Your task to perform on an android device: toggle location history Image 0: 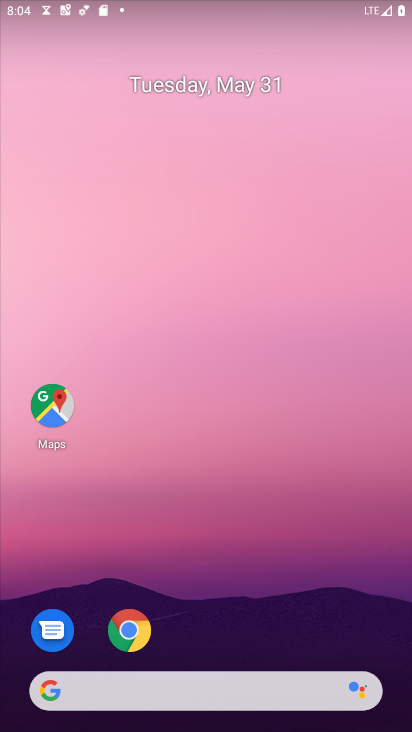
Step 0: drag from (246, 612) to (185, 151)
Your task to perform on an android device: toggle location history Image 1: 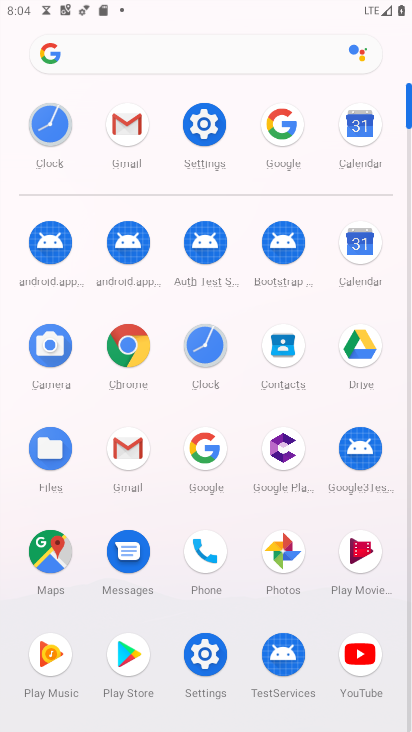
Step 1: click (204, 124)
Your task to perform on an android device: toggle location history Image 2: 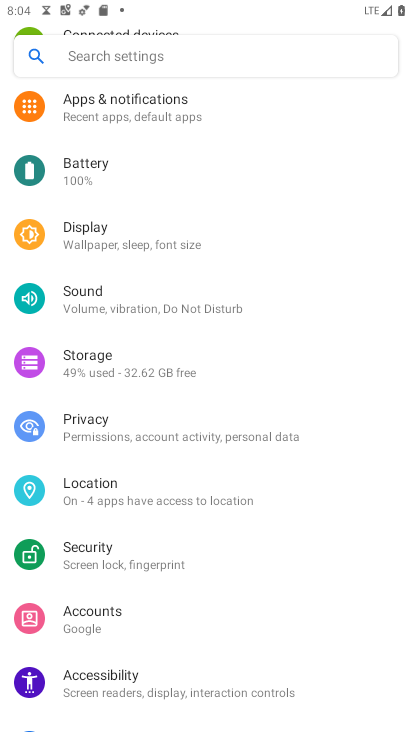
Step 2: click (150, 496)
Your task to perform on an android device: toggle location history Image 3: 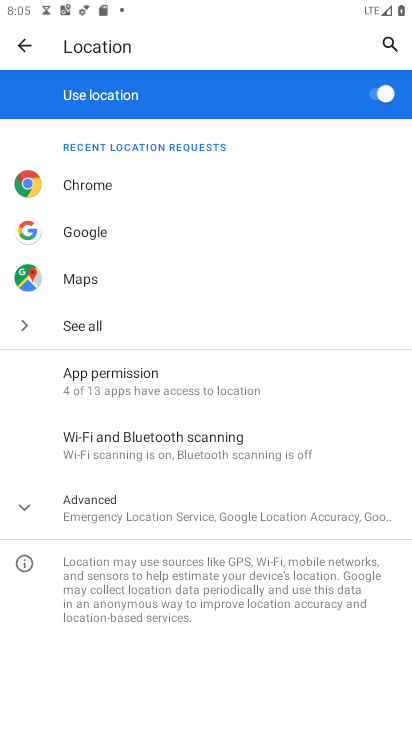
Step 3: click (125, 516)
Your task to perform on an android device: toggle location history Image 4: 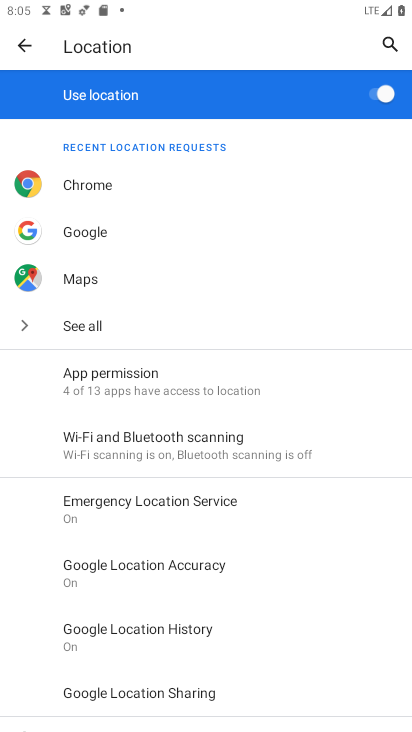
Step 4: drag from (154, 596) to (186, 543)
Your task to perform on an android device: toggle location history Image 5: 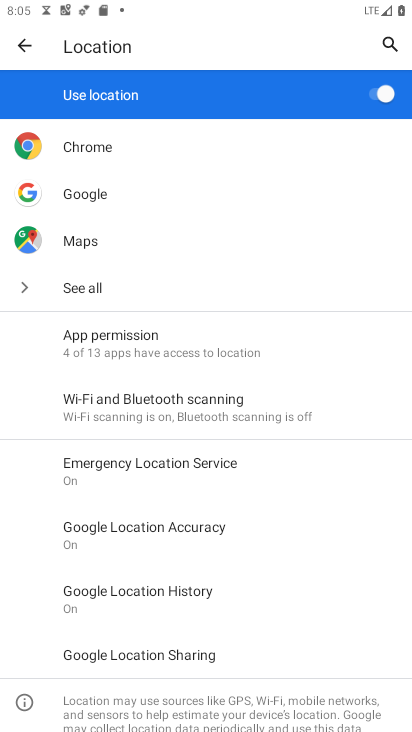
Step 5: click (162, 583)
Your task to perform on an android device: toggle location history Image 6: 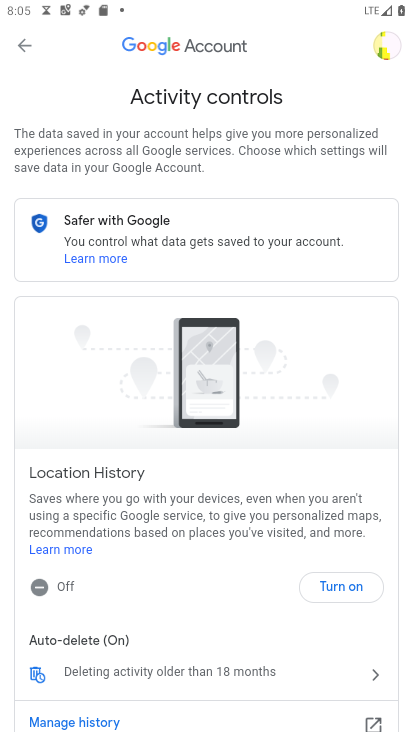
Step 6: click (331, 590)
Your task to perform on an android device: toggle location history Image 7: 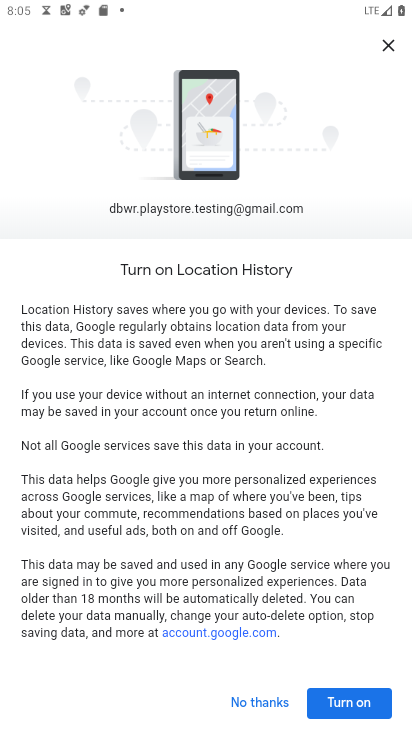
Step 7: click (348, 696)
Your task to perform on an android device: toggle location history Image 8: 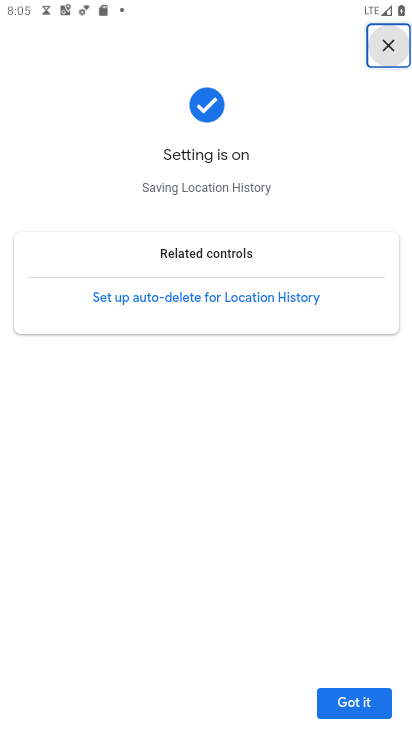
Step 8: click (348, 696)
Your task to perform on an android device: toggle location history Image 9: 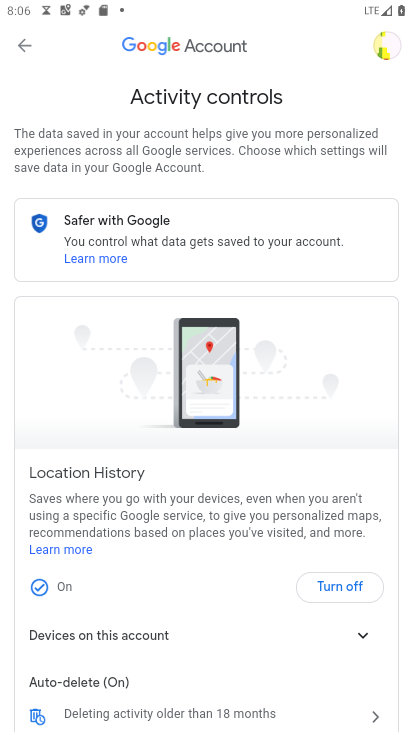
Step 9: task complete